Your task to perform on an android device: open app "Grab" Image 0: 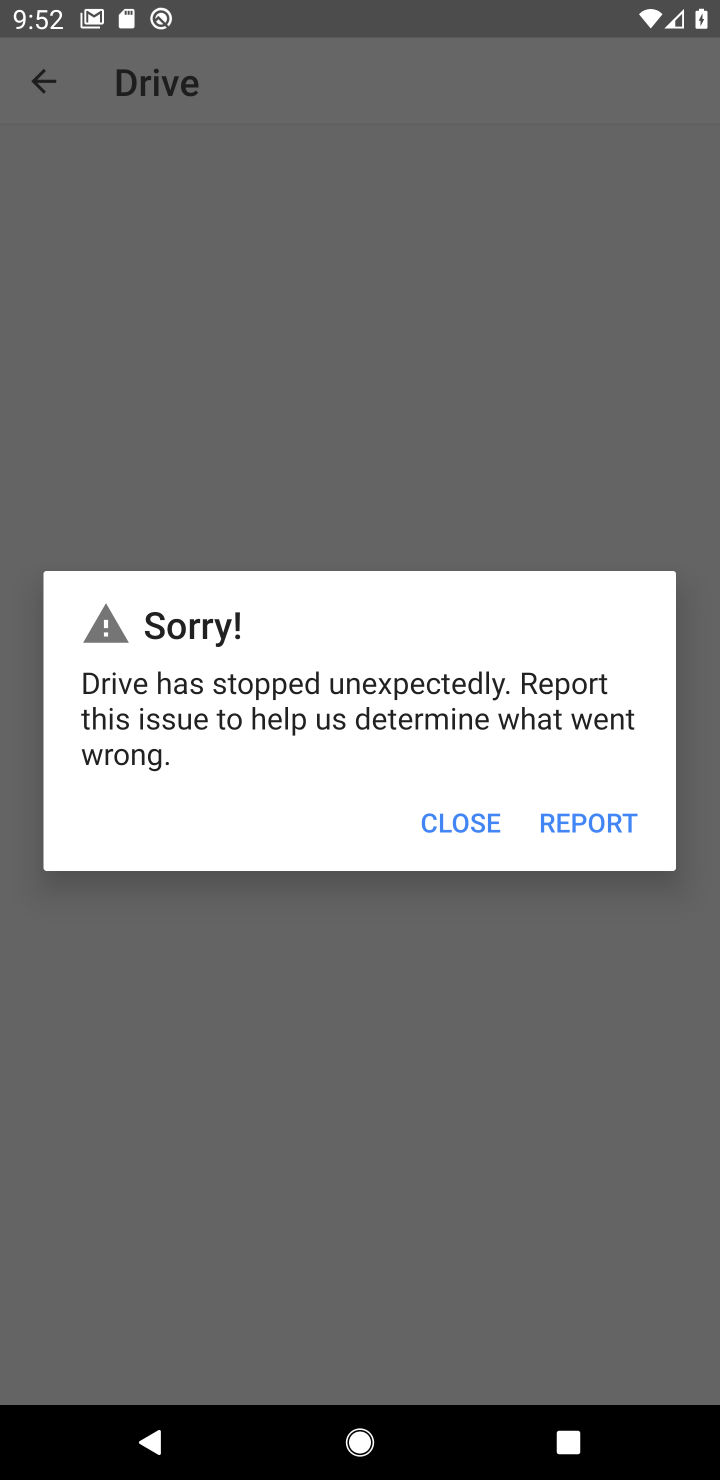
Step 0: click (44, 93)
Your task to perform on an android device: open app "Grab" Image 1: 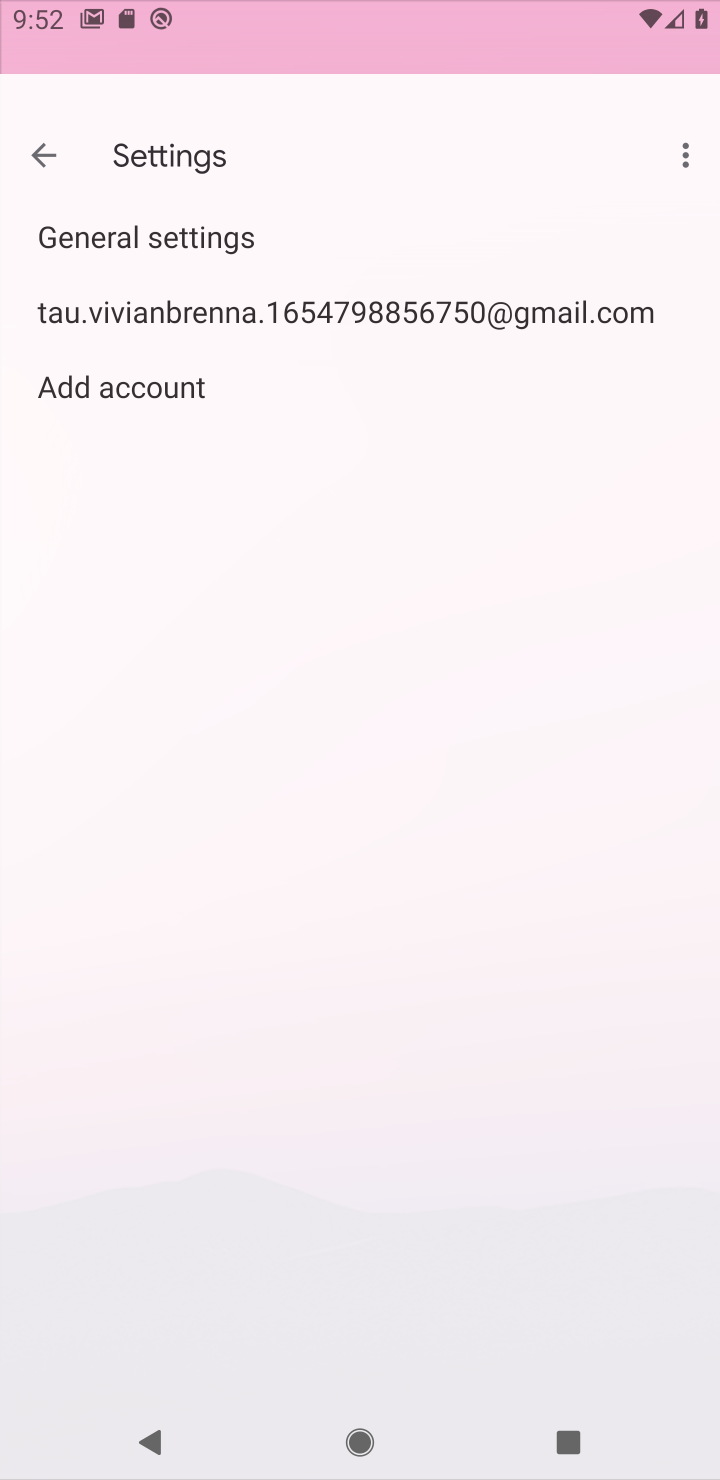
Step 1: click (27, 77)
Your task to perform on an android device: open app "Grab" Image 2: 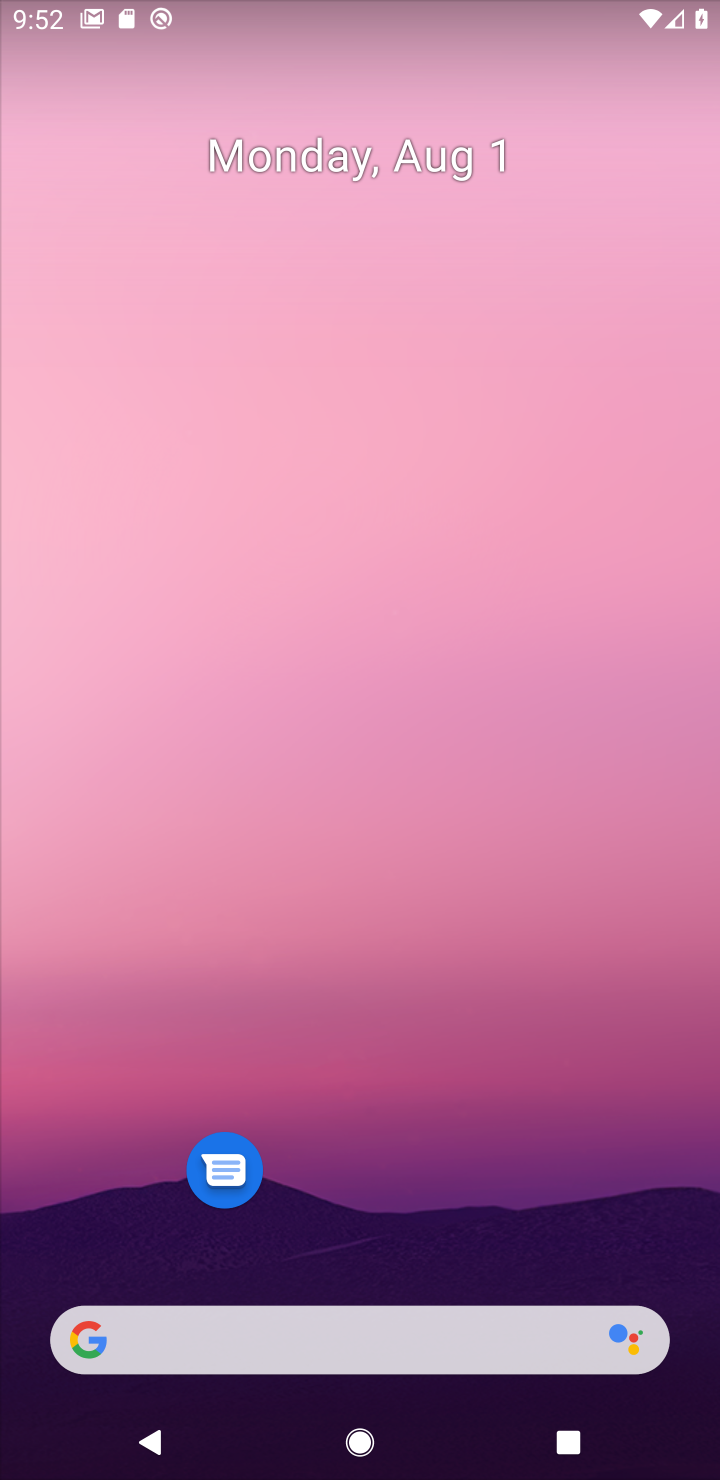
Step 2: drag from (465, 1307) to (323, 208)
Your task to perform on an android device: open app "Grab" Image 3: 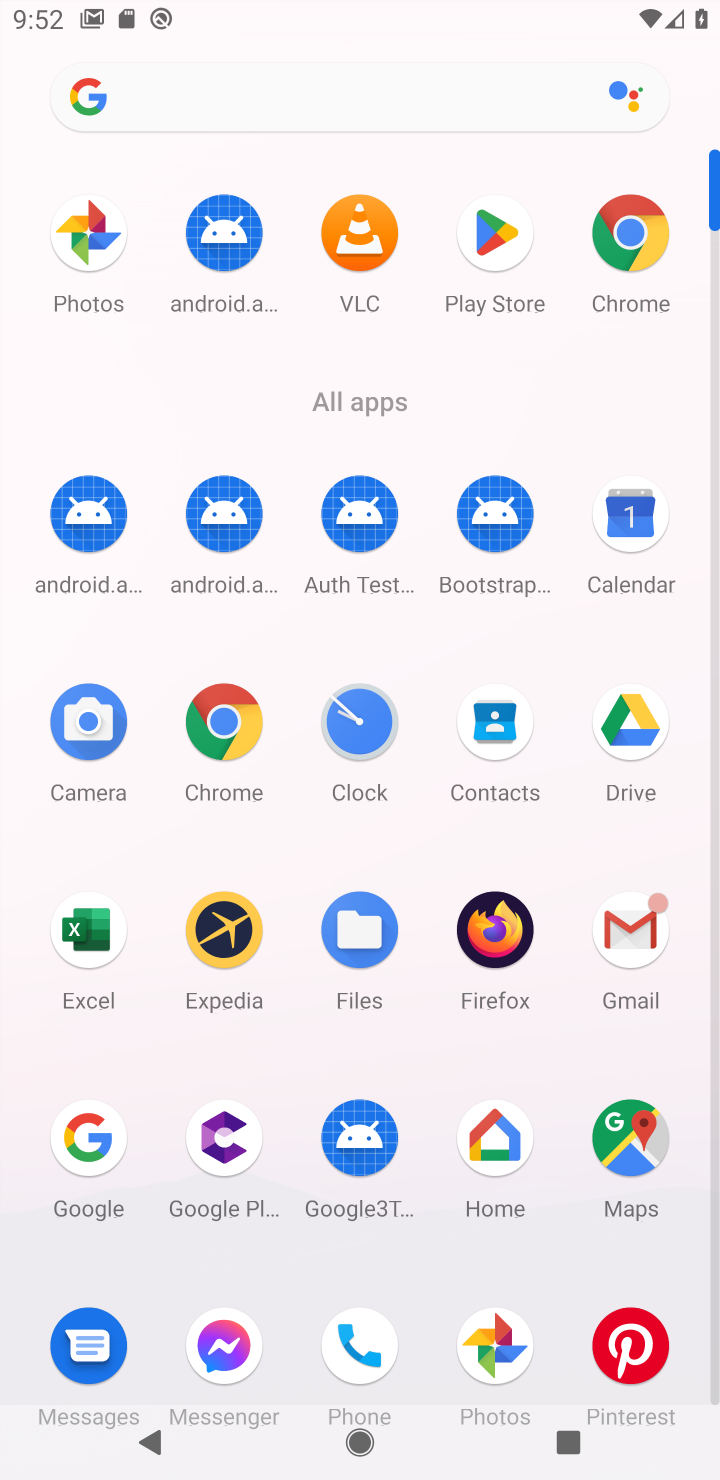
Step 3: click (491, 245)
Your task to perform on an android device: open app "Grab" Image 4: 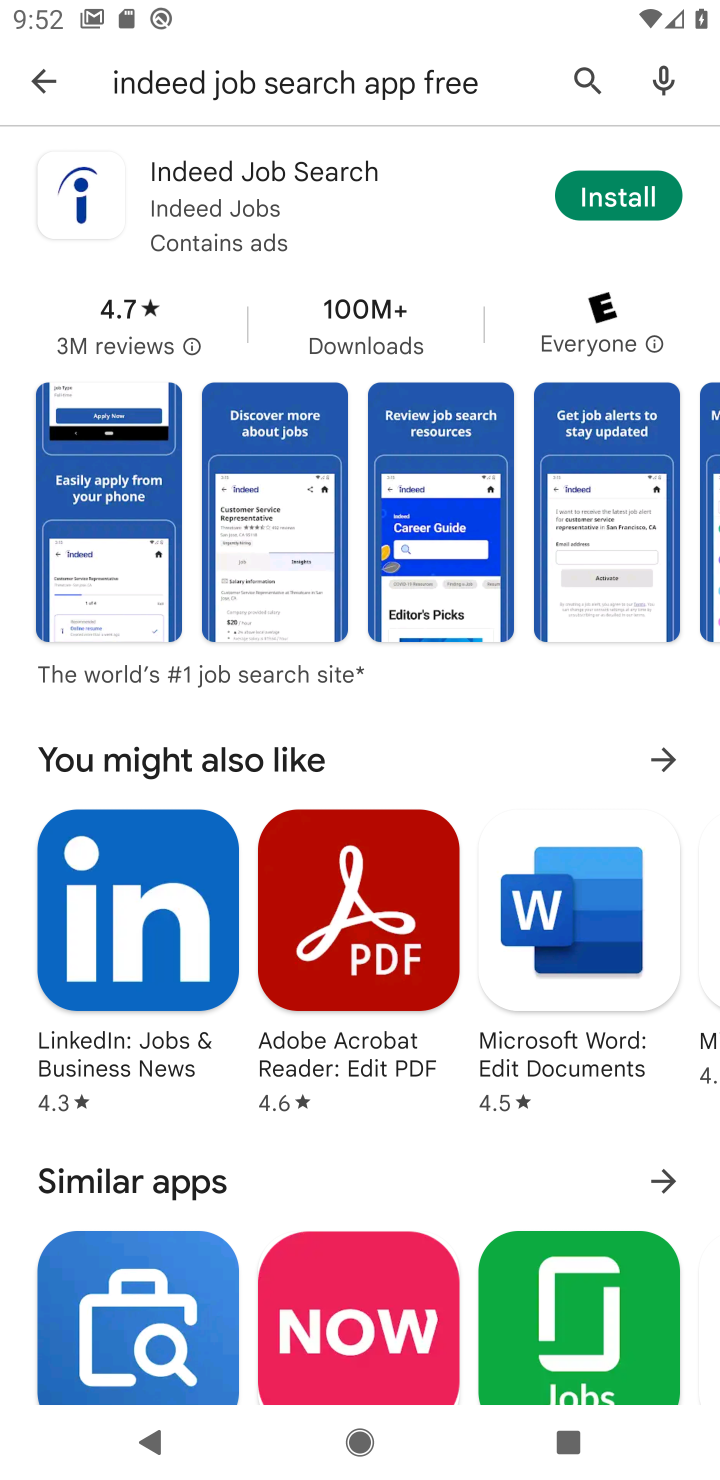
Step 4: click (63, 93)
Your task to perform on an android device: open app "Grab" Image 5: 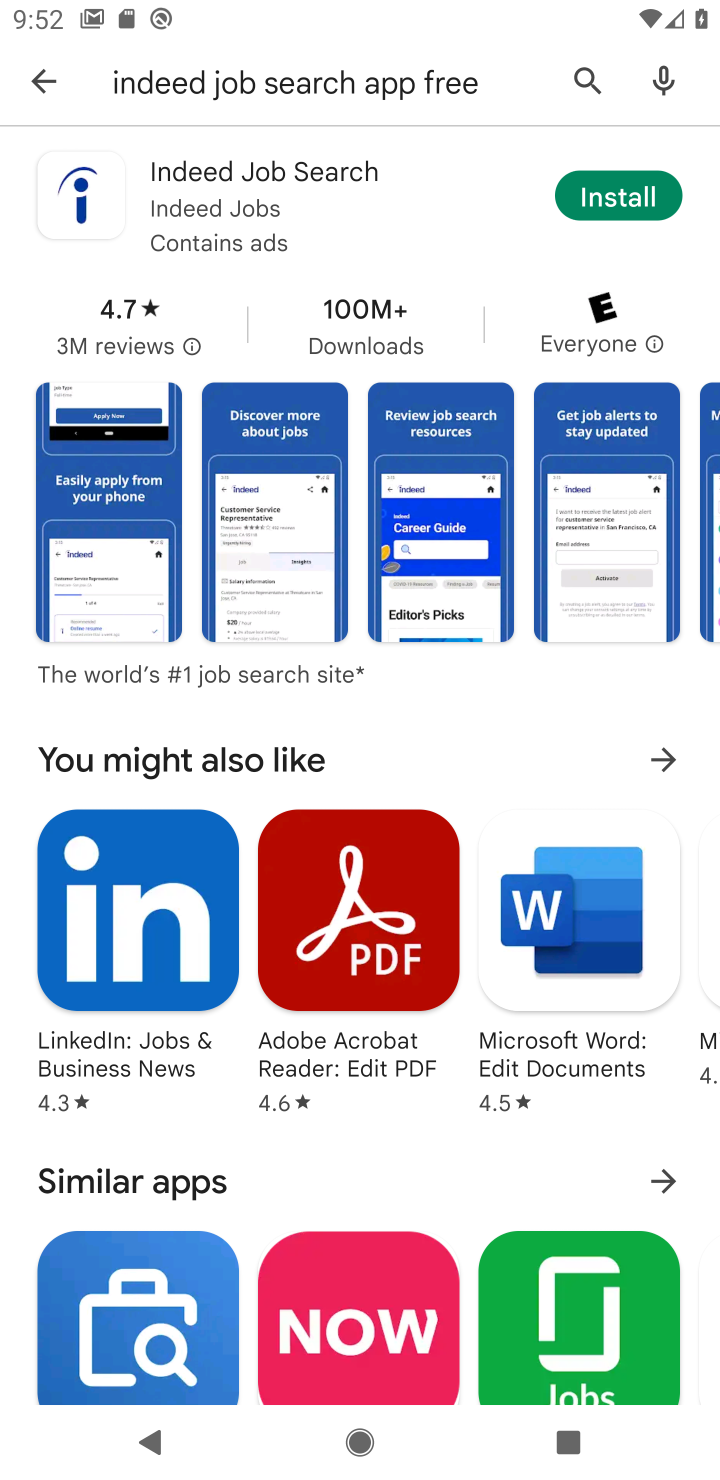
Step 5: click (37, 79)
Your task to perform on an android device: open app "Grab" Image 6: 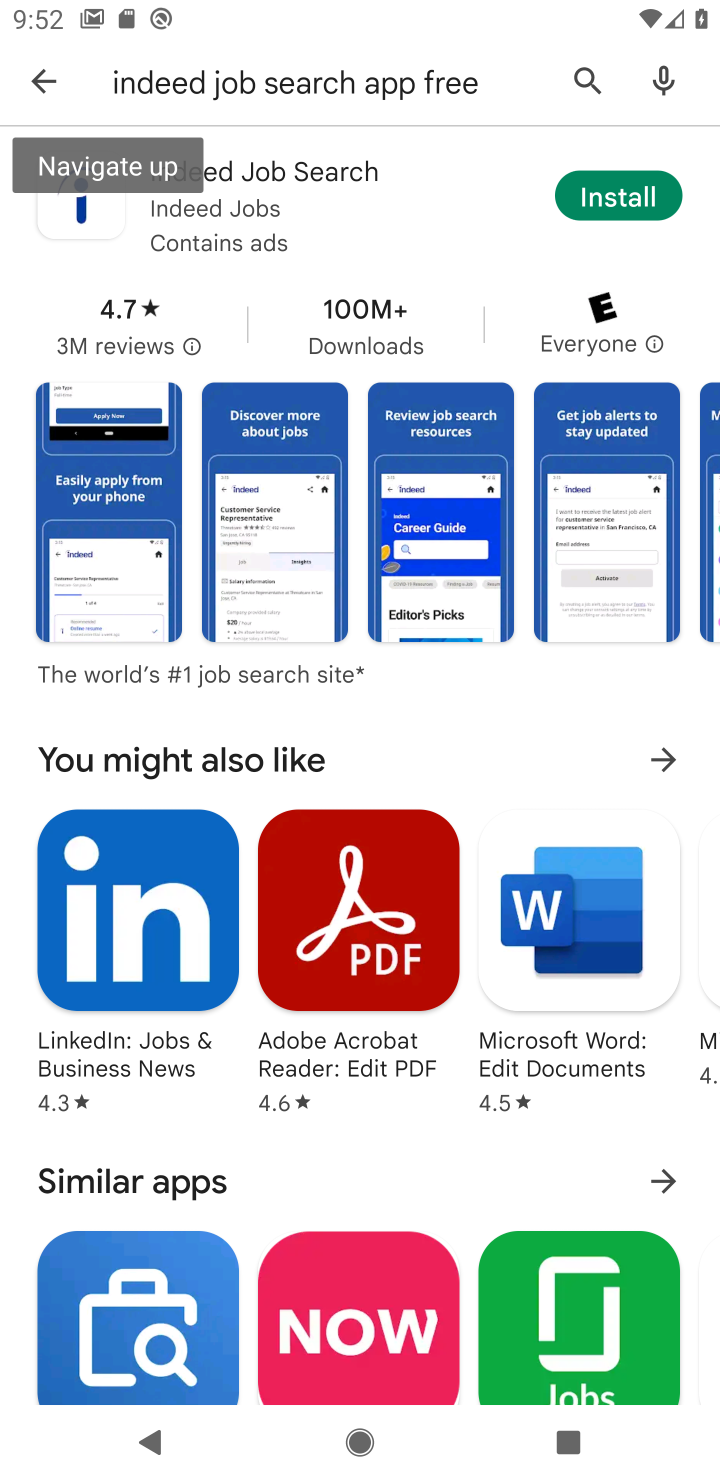
Step 6: click (37, 79)
Your task to perform on an android device: open app "Grab" Image 7: 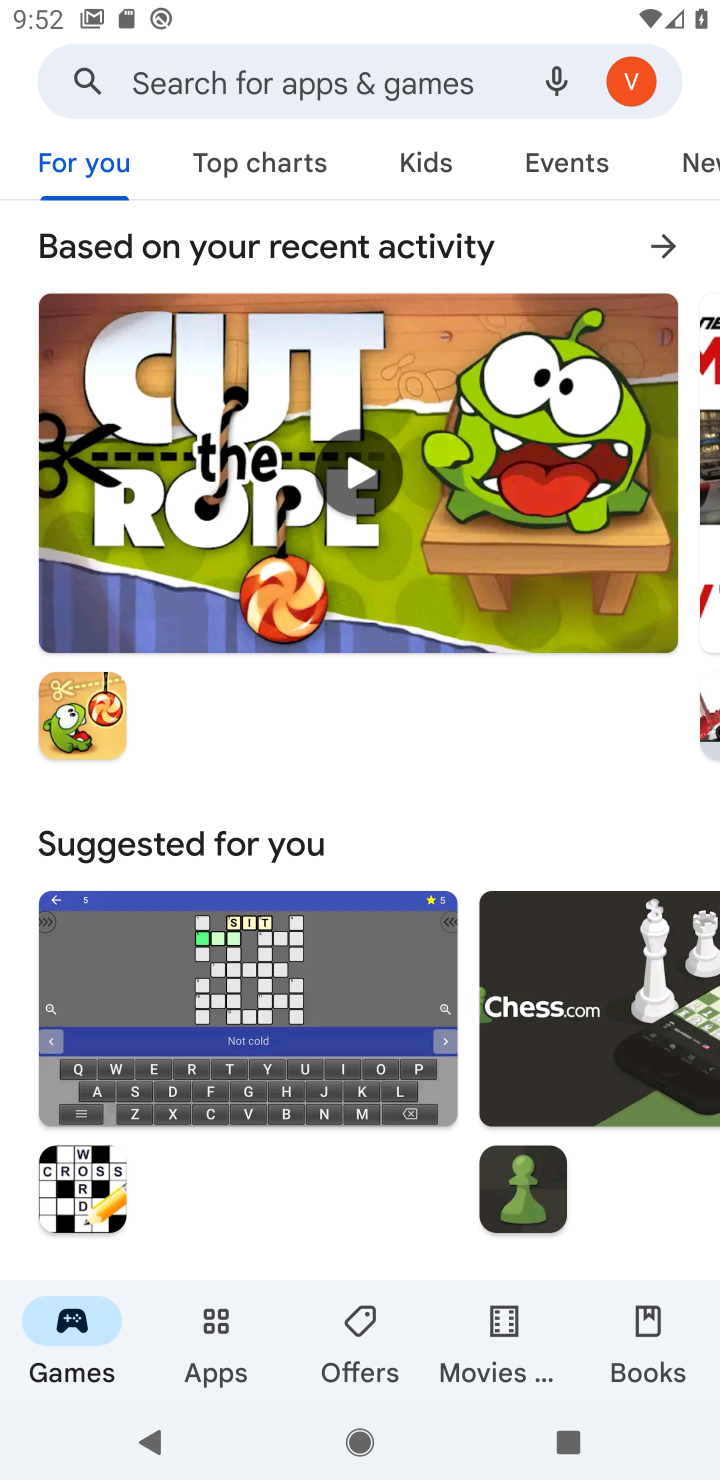
Step 7: click (284, 75)
Your task to perform on an android device: open app "Grab" Image 8: 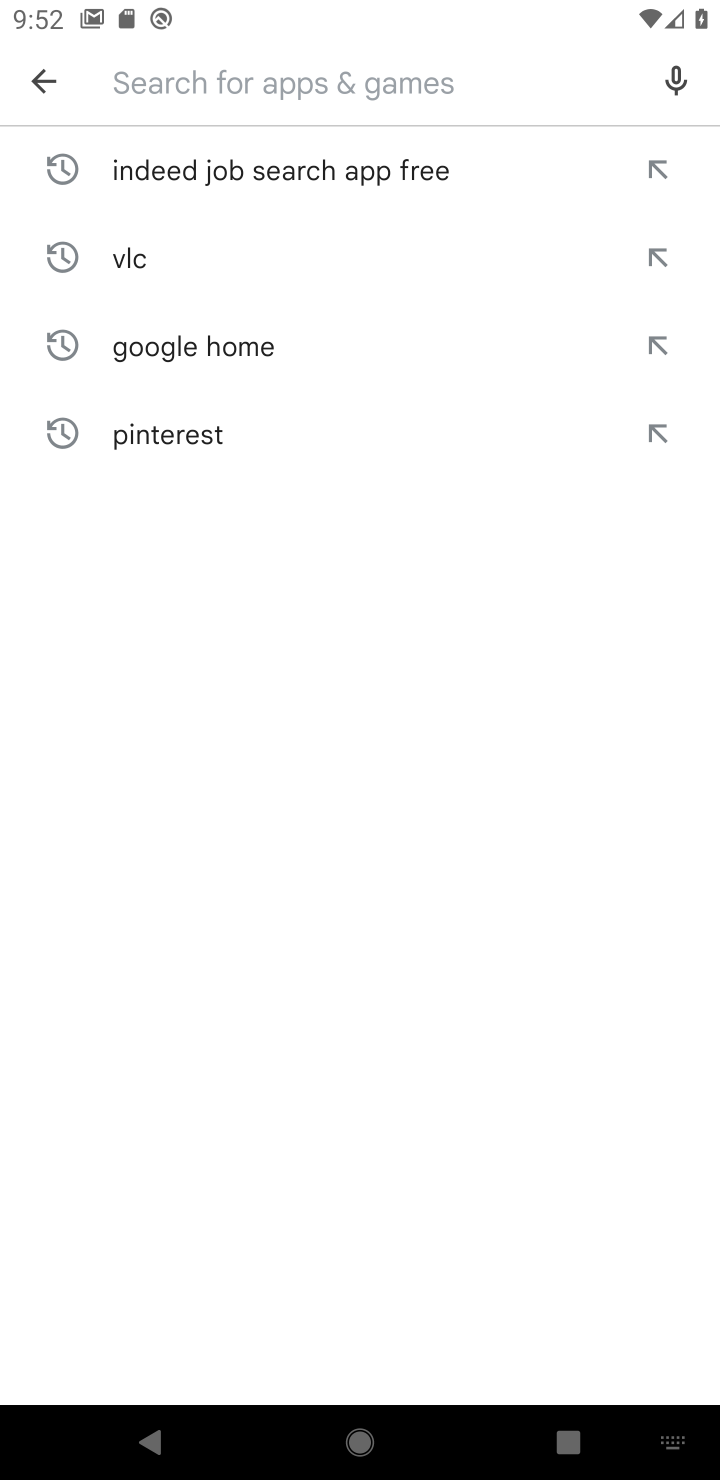
Step 8: type "Grab"
Your task to perform on an android device: open app "Grab" Image 9: 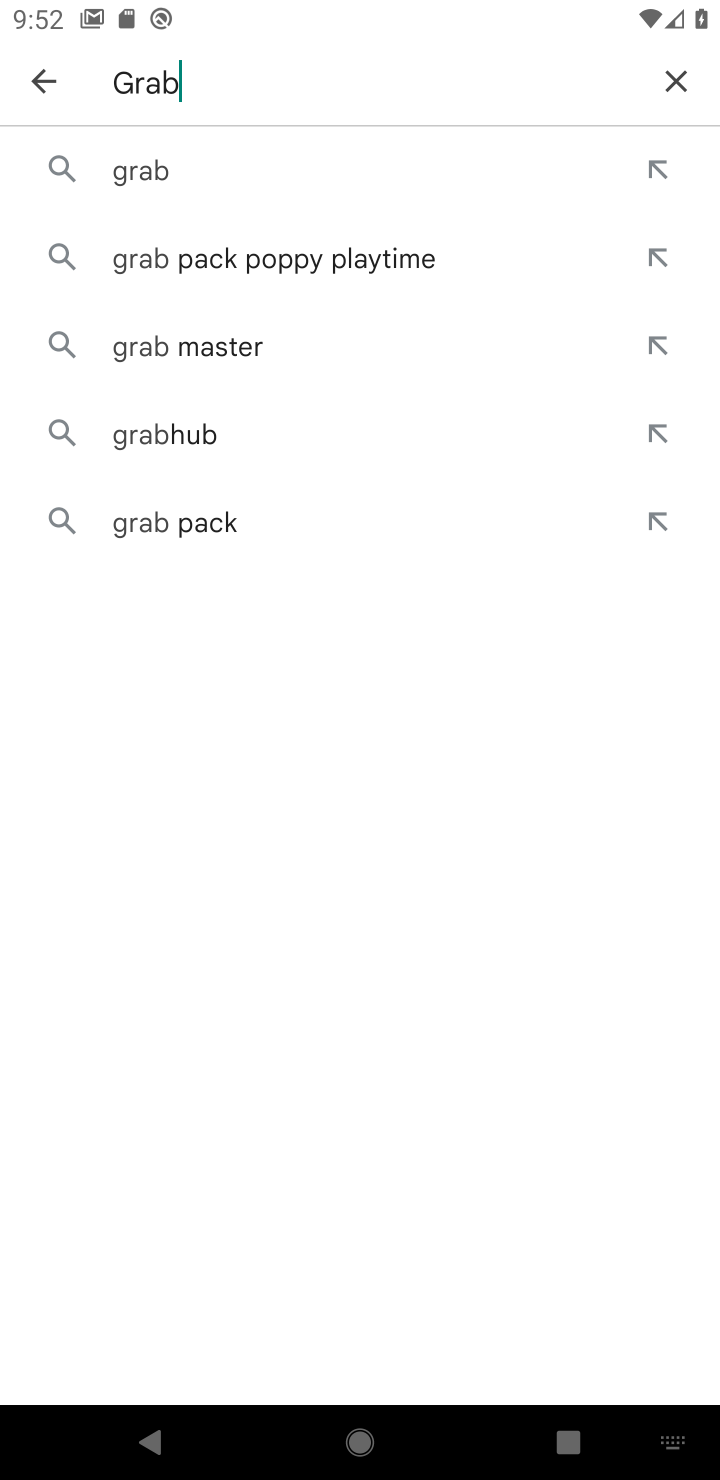
Step 9: click (160, 161)
Your task to perform on an android device: open app "Grab" Image 10: 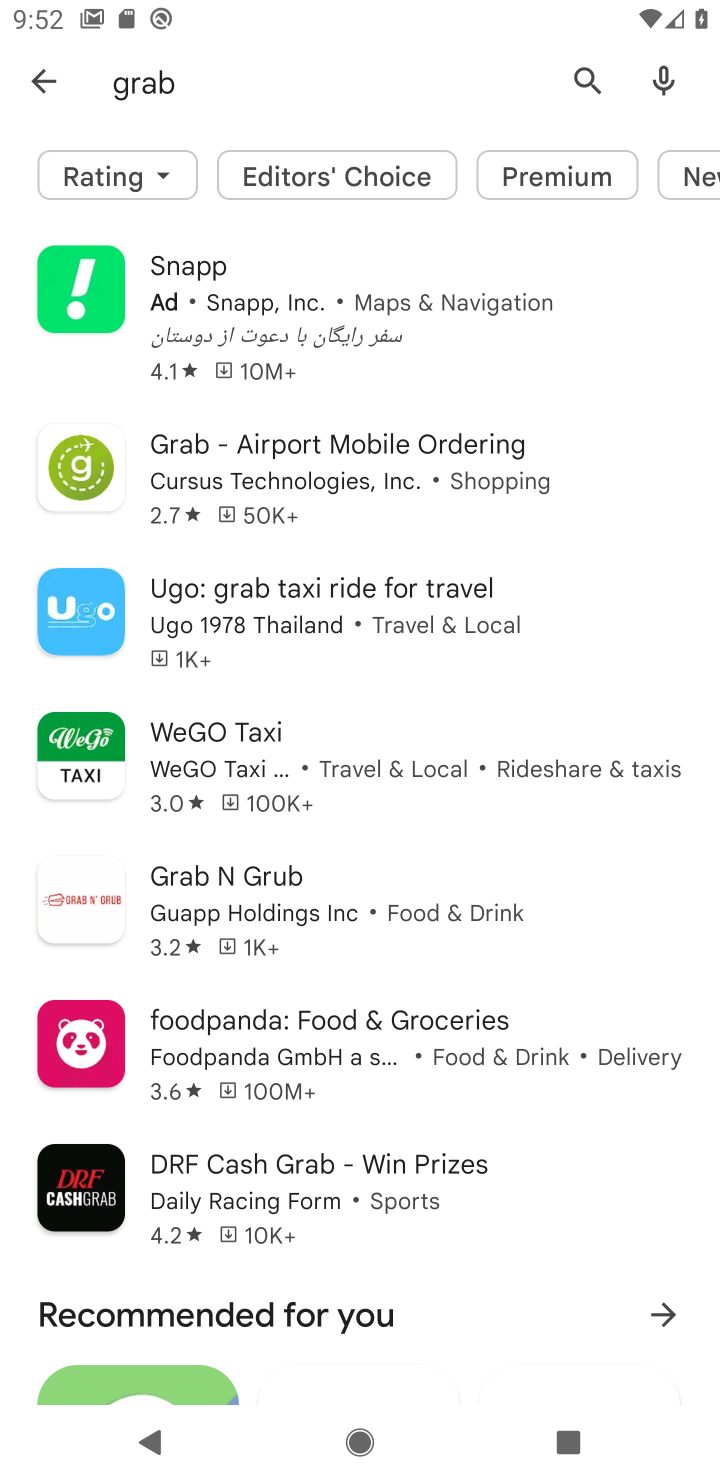
Step 10: task complete